Your task to perform on an android device: Search for sushi restaurants on Maps Image 0: 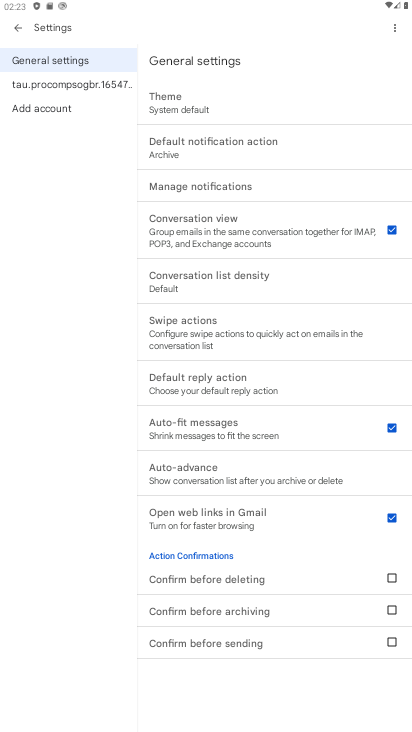
Step 0: press home button
Your task to perform on an android device: Search for sushi restaurants on Maps Image 1: 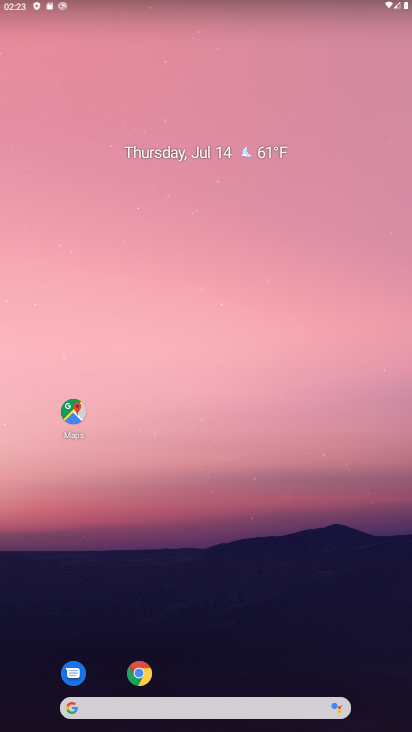
Step 1: click (66, 405)
Your task to perform on an android device: Search for sushi restaurants on Maps Image 2: 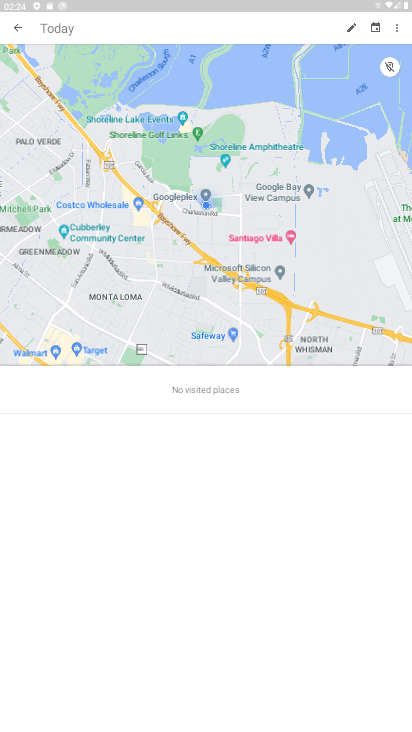
Step 2: click (135, 35)
Your task to perform on an android device: Search for sushi restaurants on Maps Image 3: 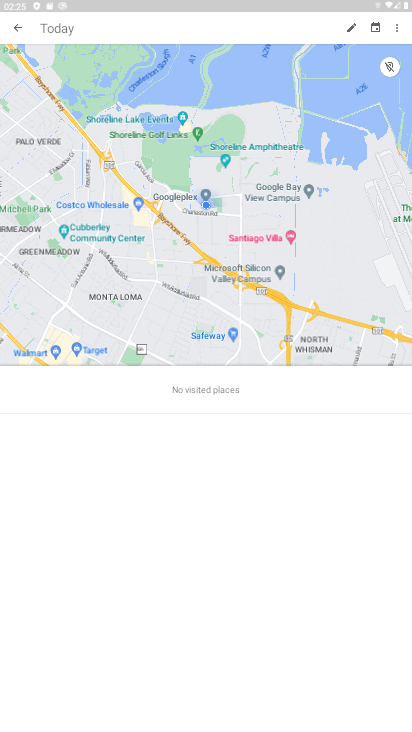
Step 3: click (17, 25)
Your task to perform on an android device: Search for sushi restaurants on Maps Image 4: 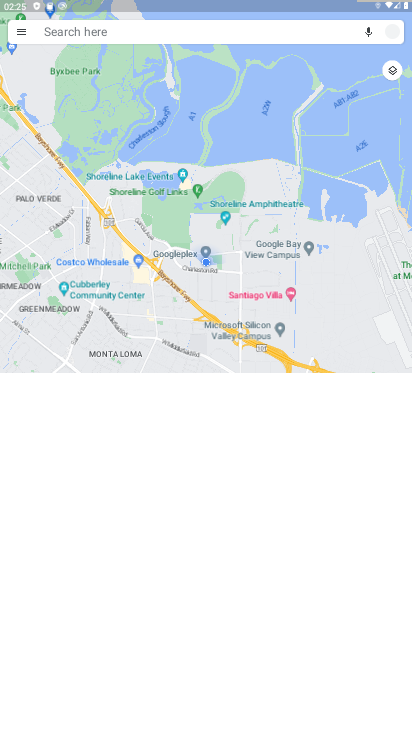
Step 4: click (17, 25)
Your task to perform on an android device: Search for sushi restaurants on Maps Image 5: 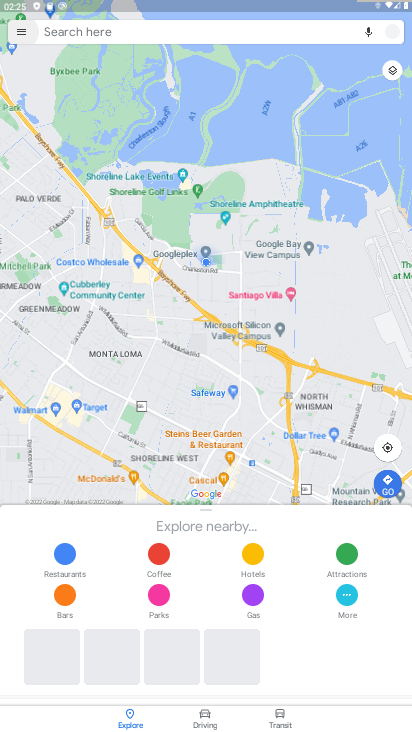
Step 5: click (76, 29)
Your task to perform on an android device: Search for sushi restaurants on Maps Image 6: 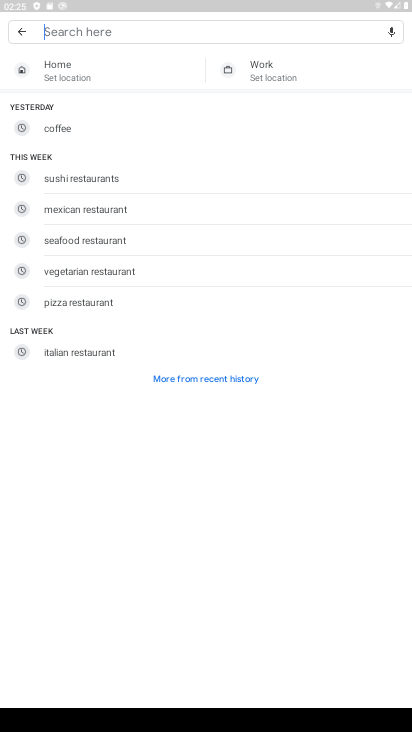
Step 6: type "sushii"
Your task to perform on an android device: Search for sushi restaurants on Maps Image 7: 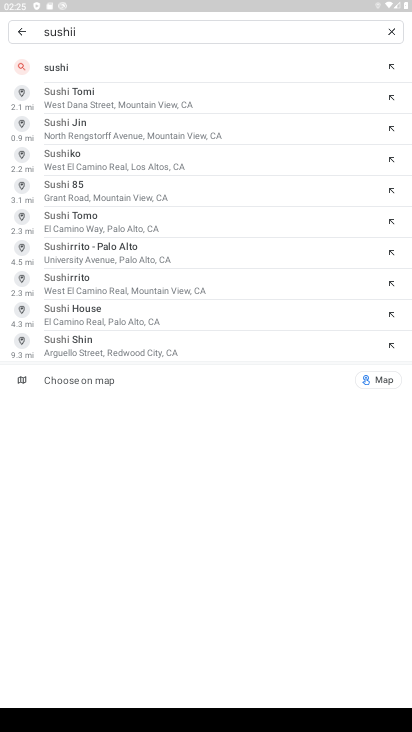
Step 7: click (99, 90)
Your task to perform on an android device: Search for sushi restaurants on Maps Image 8: 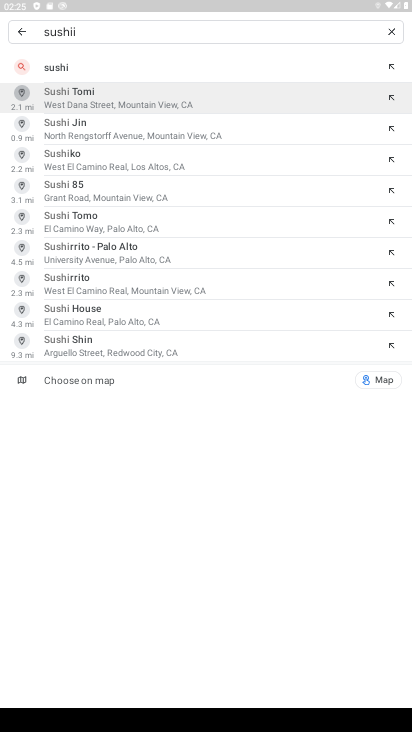
Step 8: task complete